Your task to perform on an android device: Empty the shopping cart on ebay. Image 0: 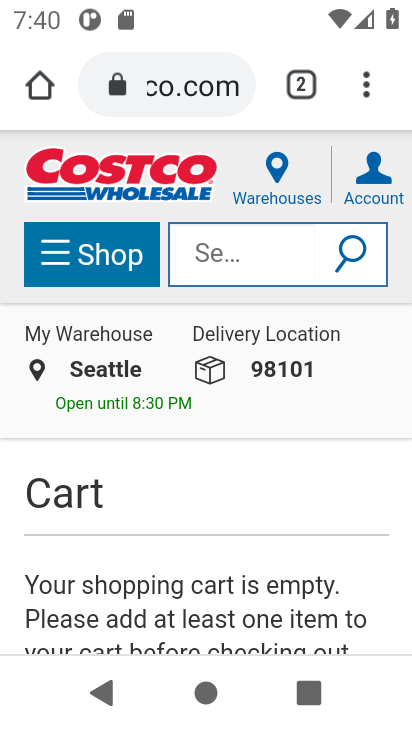
Step 0: press home button
Your task to perform on an android device: Empty the shopping cart on ebay. Image 1: 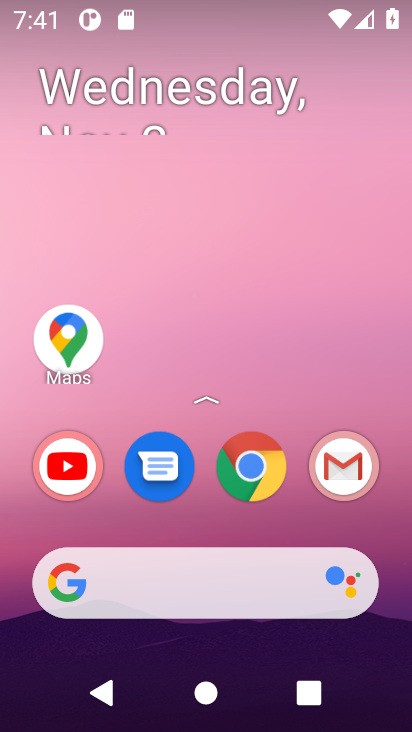
Step 1: click (111, 587)
Your task to perform on an android device: Empty the shopping cart on ebay. Image 2: 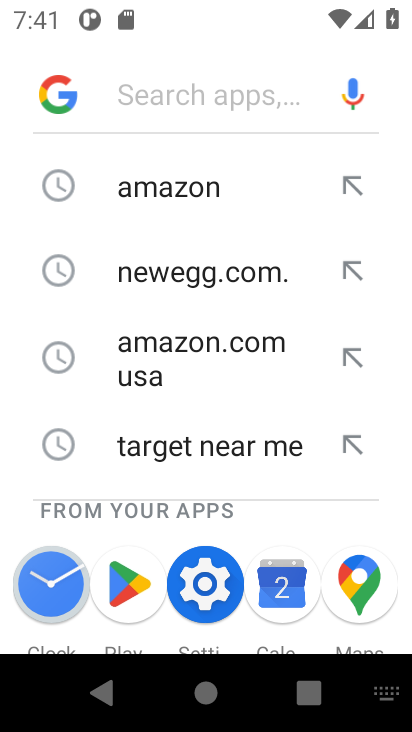
Step 2: click (212, 89)
Your task to perform on an android device: Empty the shopping cart on ebay. Image 3: 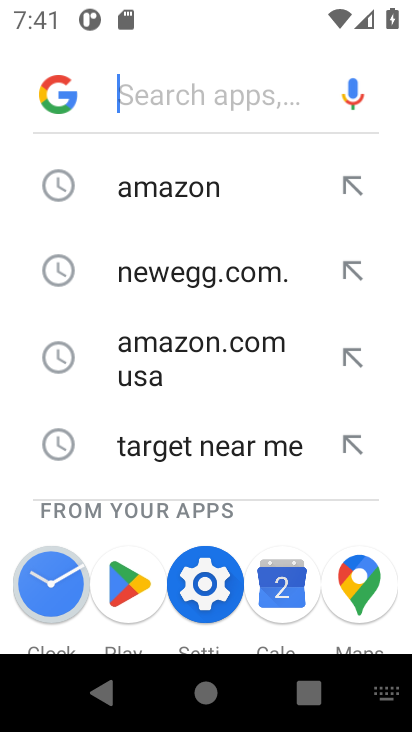
Step 3: type "ebay"
Your task to perform on an android device: Empty the shopping cart on ebay. Image 4: 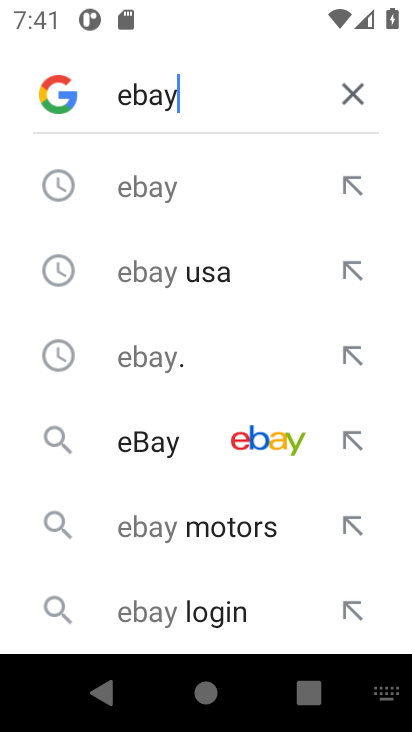
Step 4: click (256, 178)
Your task to perform on an android device: Empty the shopping cart on ebay. Image 5: 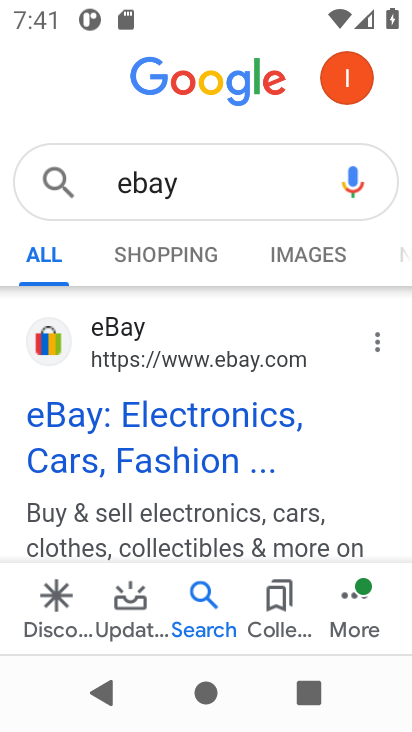
Step 5: click (132, 333)
Your task to perform on an android device: Empty the shopping cart on ebay. Image 6: 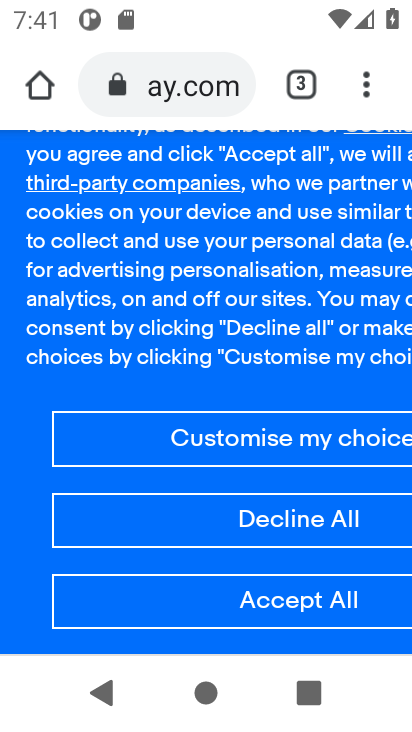
Step 6: click (277, 605)
Your task to perform on an android device: Empty the shopping cart on ebay. Image 7: 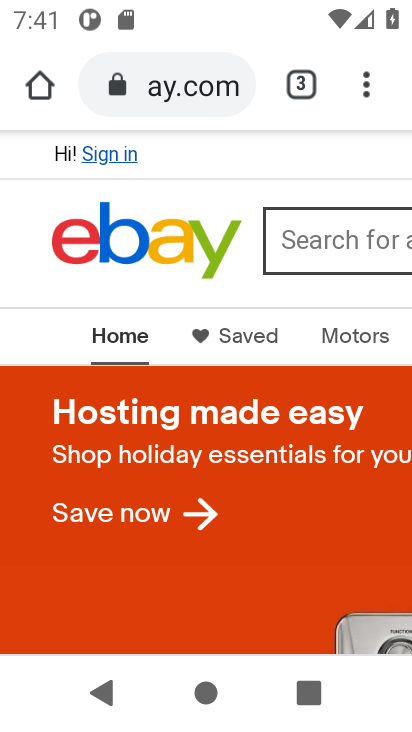
Step 7: click (302, 256)
Your task to perform on an android device: Empty the shopping cart on ebay. Image 8: 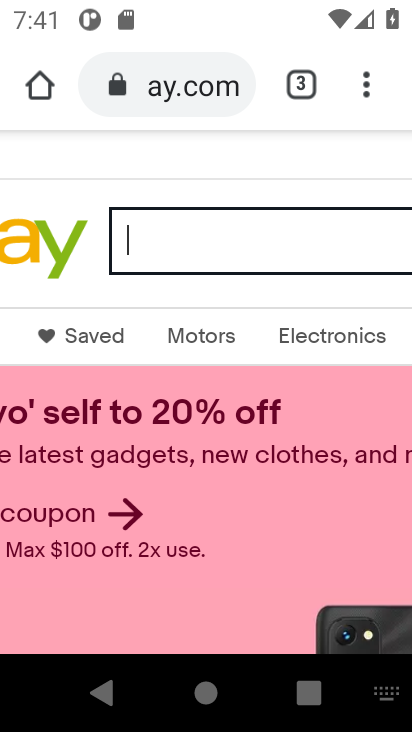
Step 8: click (110, 180)
Your task to perform on an android device: Empty the shopping cart on ebay. Image 9: 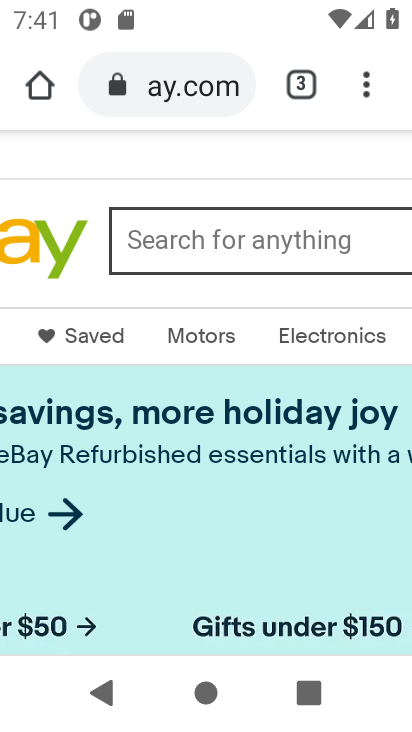
Step 9: drag from (326, 390) to (66, 368)
Your task to perform on an android device: Empty the shopping cart on ebay. Image 10: 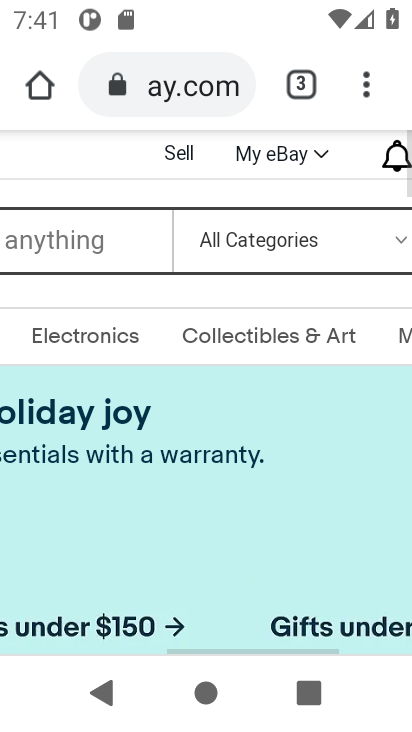
Step 10: drag from (266, 366) to (169, 350)
Your task to perform on an android device: Empty the shopping cart on ebay. Image 11: 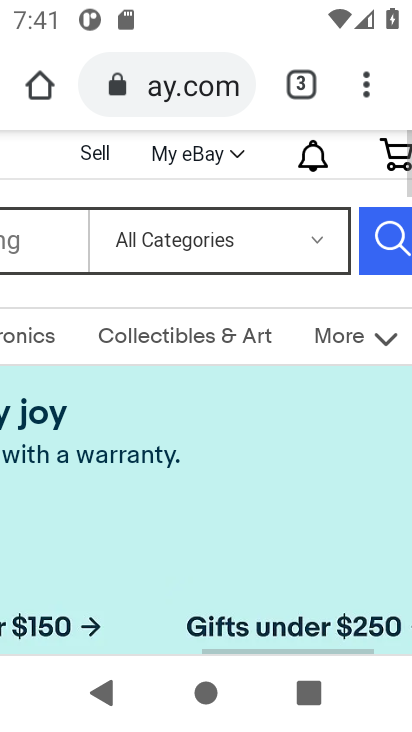
Step 11: drag from (277, 359) to (185, 345)
Your task to perform on an android device: Empty the shopping cart on ebay. Image 12: 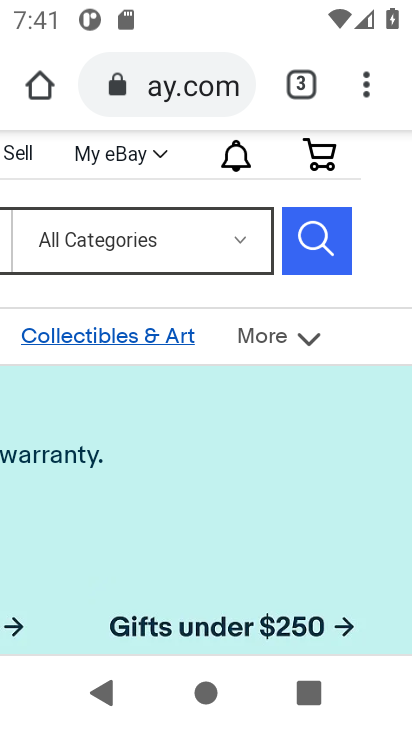
Step 12: click (306, 153)
Your task to perform on an android device: Empty the shopping cart on ebay. Image 13: 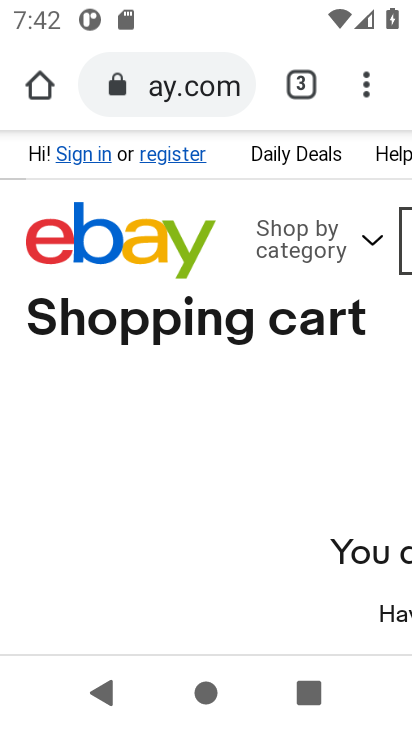
Step 13: task complete